Your task to perform on an android device: Open Google Chrome and open the bookmarks view Image 0: 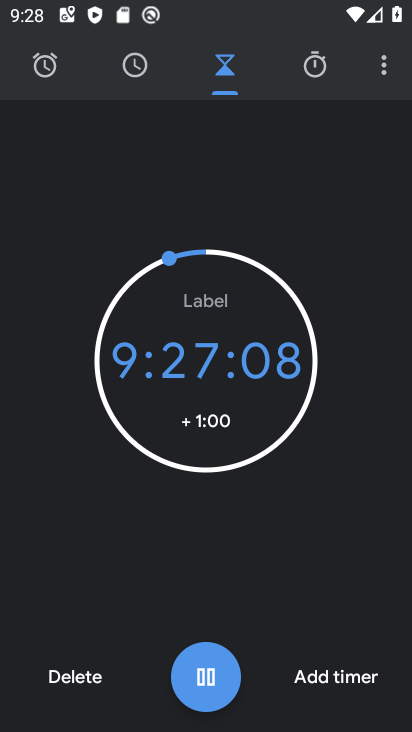
Step 0: press home button
Your task to perform on an android device: Open Google Chrome and open the bookmarks view Image 1: 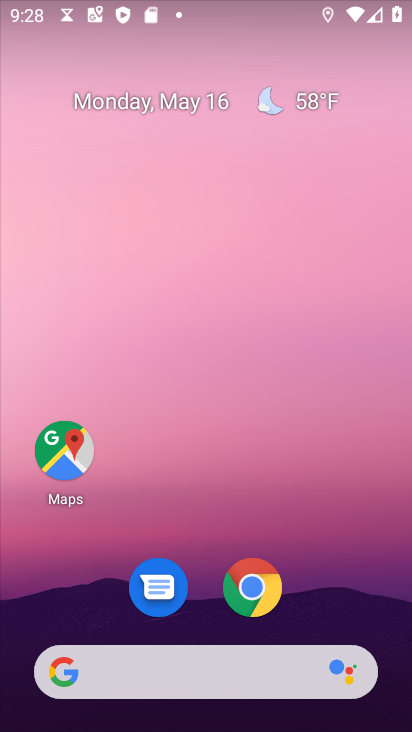
Step 1: click (260, 608)
Your task to perform on an android device: Open Google Chrome and open the bookmarks view Image 2: 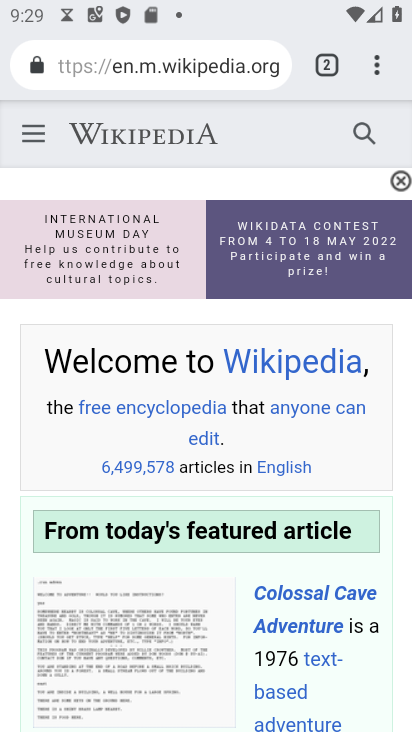
Step 2: click (374, 60)
Your task to perform on an android device: Open Google Chrome and open the bookmarks view Image 3: 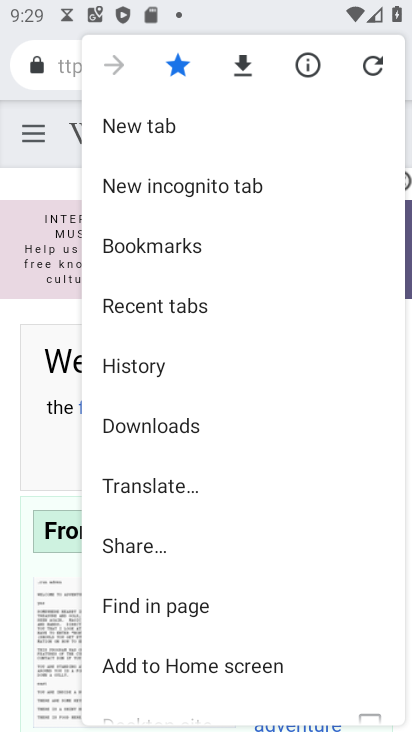
Step 3: click (281, 243)
Your task to perform on an android device: Open Google Chrome and open the bookmarks view Image 4: 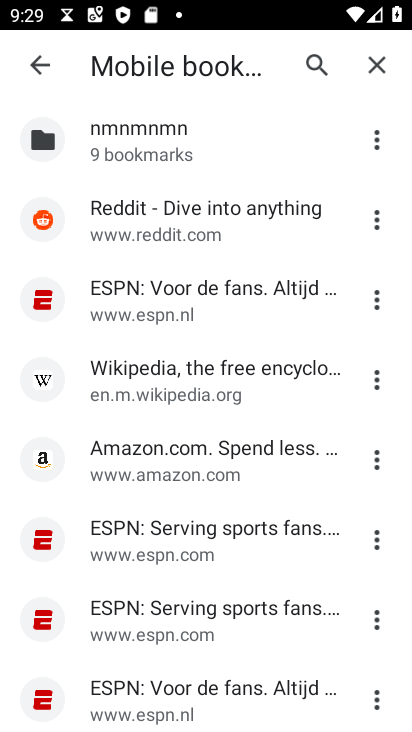
Step 4: task complete